Your task to perform on an android device: Open settings Image 0: 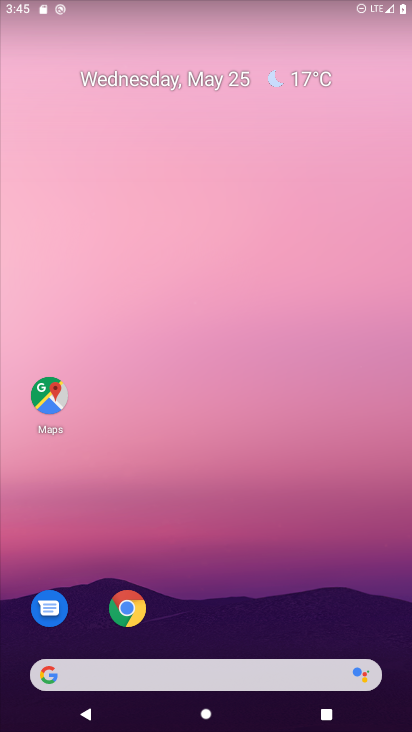
Step 0: drag from (361, 625) to (309, 124)
Your task to perform on an android device: Open settings Image 1: 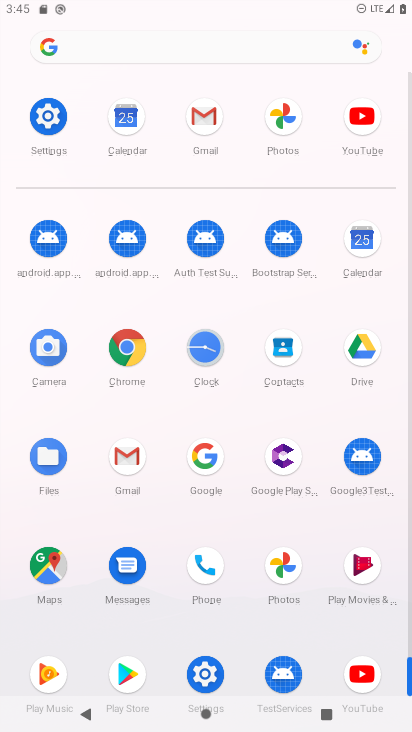
Step 1: click (204, 673)
Your task to perform on an android device: Open settings Image 2: 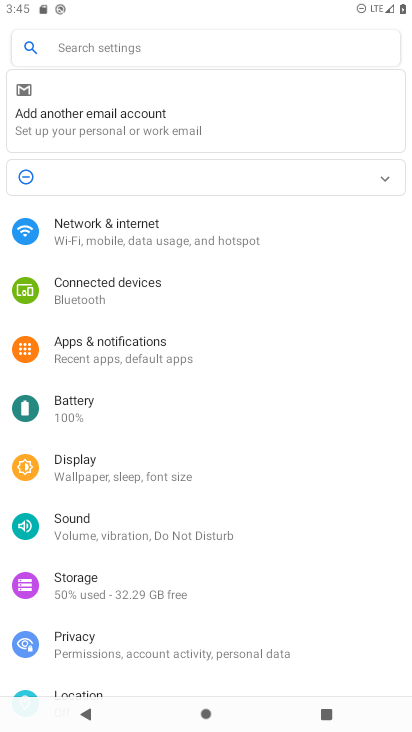
Step 2: task complete